Your task to perform on an android device: toggle wifi Image 0: 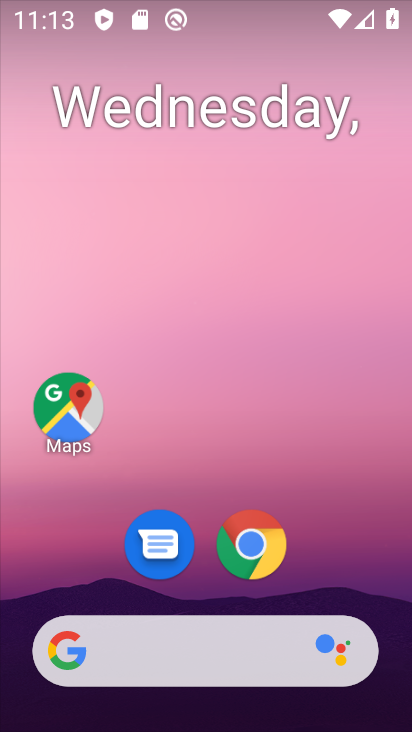
Step 0: drag from (210, 520) to (235, 91)
Your task to perform on an android device: toggle wifi Image 1: 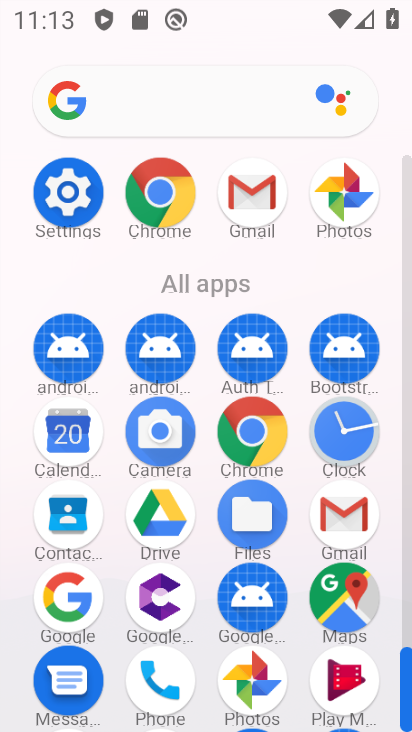
Step 1: click (82, 226)
Your task to perform on an android device: toggle wifi Image 2: 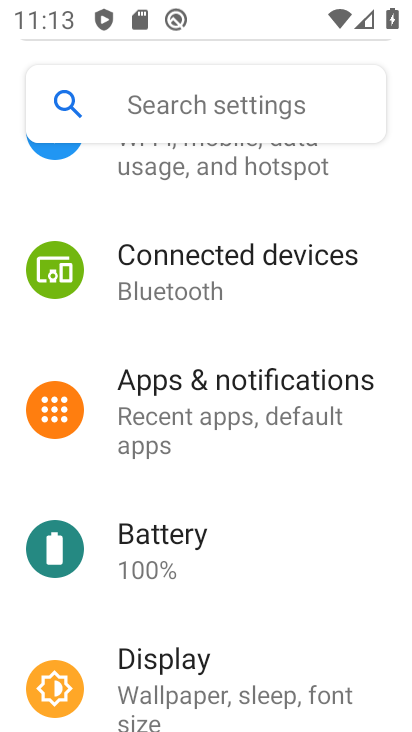
Step 2: drag from (248, 215) to (221, 611)
Your task to perform on an android device: toggle wifi Image 3: 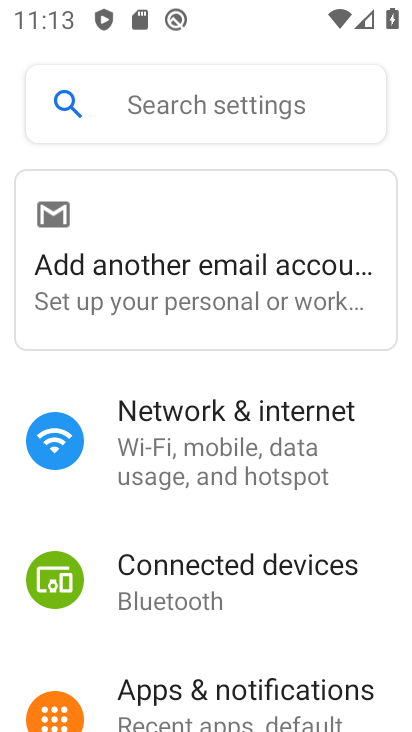
Step 3: click (269, 434)
Your task to perform on an android device: toggle wifi Image 4: 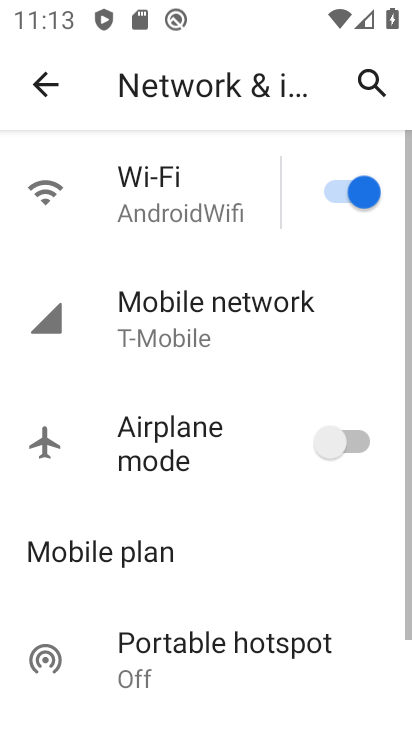
Step 4: click (344, 192)
Your task to perform on an android device: toggle wifi Image 5: 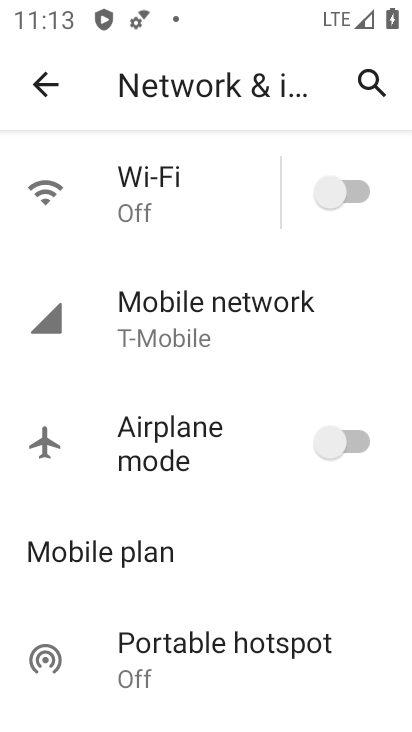
Step 5: task complete